Your task to perform on an android device: turn on wifi Image 0: 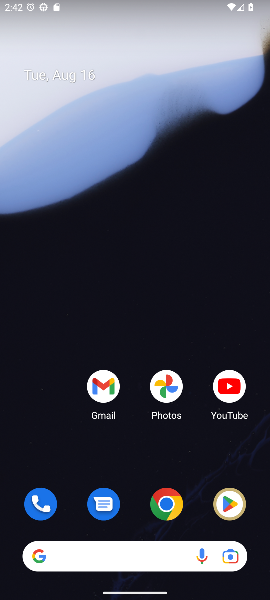
Step 0: drag from (145, 480) to (166, 3)
Your task to perform on an android device: turn on wifi Image 1: 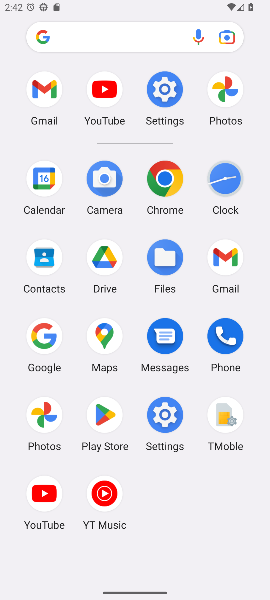
Step 1: click (163, 85)
Your task to perform on an android device: turn on wifi Image 2: 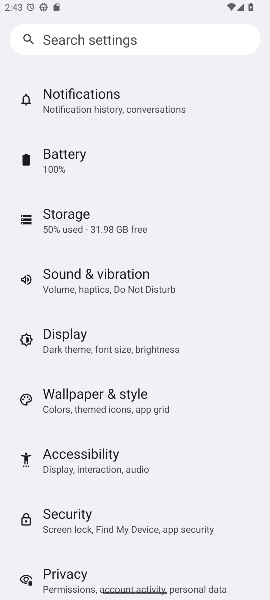
Step 2: drag from (171, 142) to (153, 392)
Your task to perform on an android device: turn on wifi Image 3: 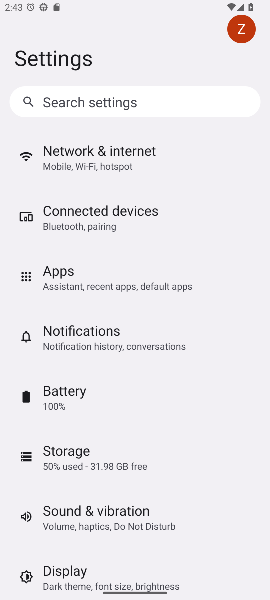
Step 3: click (94, 147)
Your task to perform on an android device: turn on wifi Image 4: 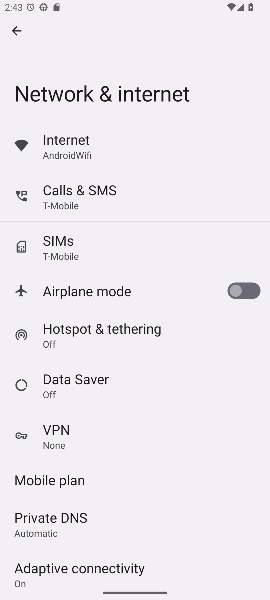
Step 4: click (62, 138)
Your task to perform on an android device: turn on wifi Image 5: 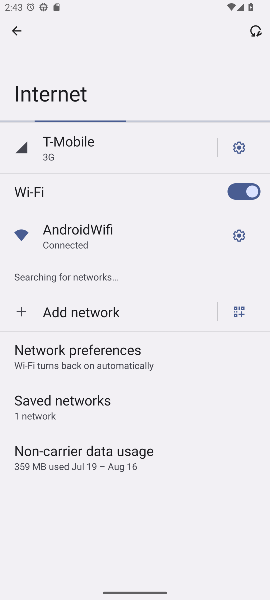
Step 5: task complete